Your task to perform on an android device: Go to Yahoo.com Image 0: 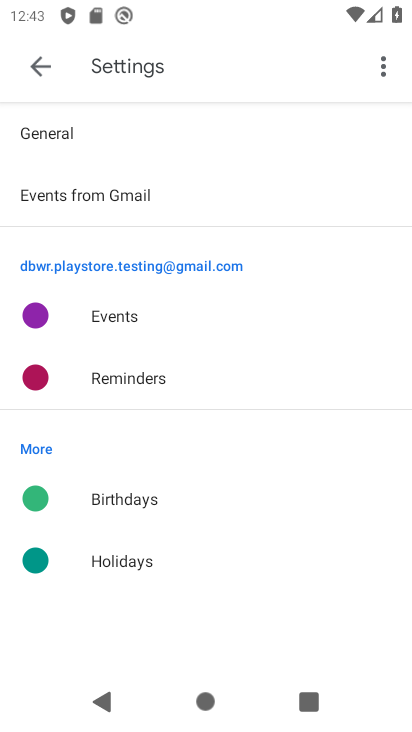
Step 0: press home button
Your task to perform on an android device: Go to Yahoo.com Image 1: 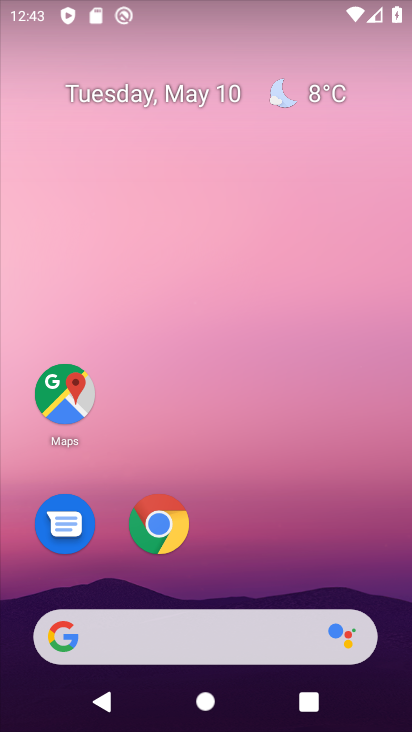
Step 1: click (259, 637)
Your task to perform on an android device: Go to Yahoo.com Image 2: 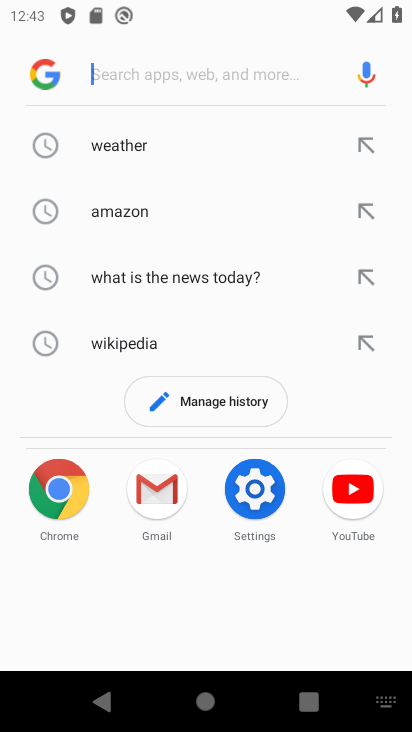
Step 2: type "yahoo.com"
Your task to perform on an android device: Go to Yahoo.com Image 3: 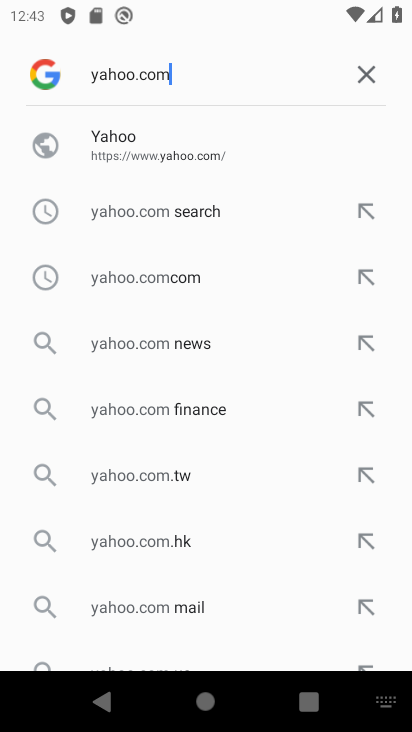
Step 3: click (107, 126)
Your task to perform on an android device: Go to Yahoo.com Image 4: 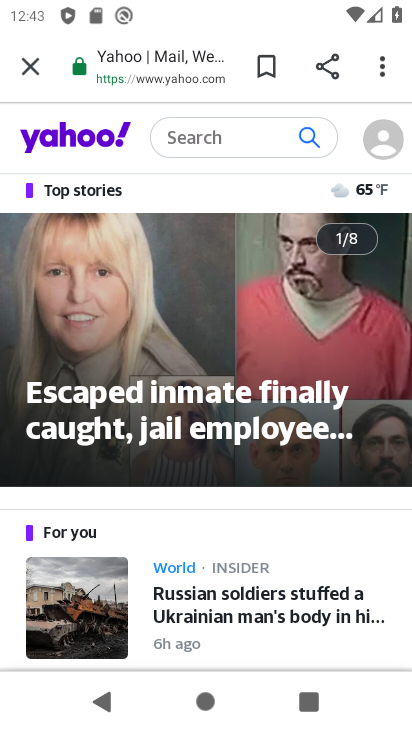
Step 4: task complete